Your task to perform on an android device: turn on priority inbox in the gmail app Image 0: 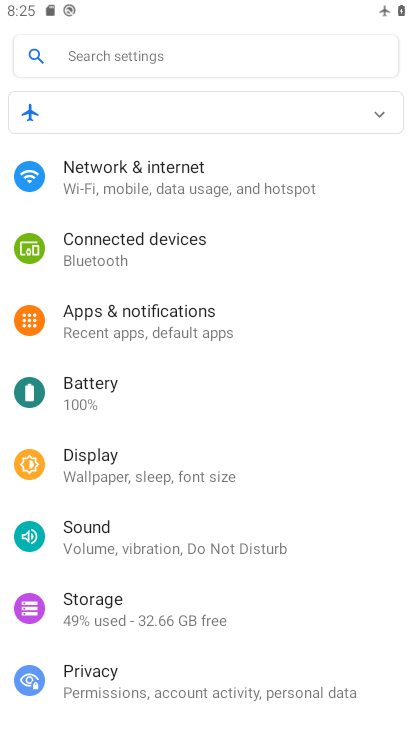
Step 0: press home button
Your task to perform on an android device: turn on priority inbox in the gmail app Image 1: 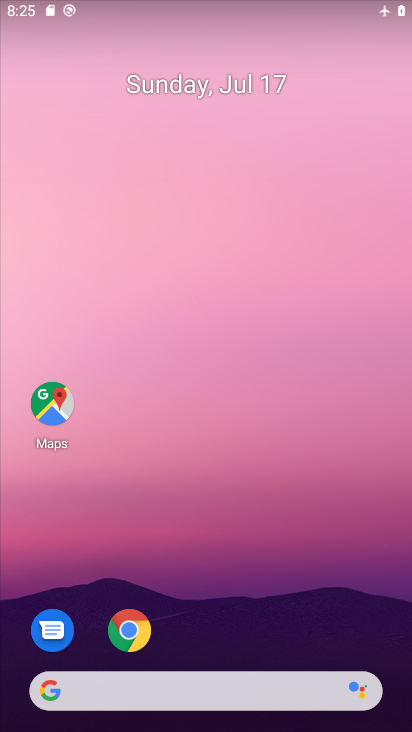
Step 1: drag from (205, 654) to (105, 5)
Your task to perform on an android device: turn on priority inbox in the gmail app Image 2: 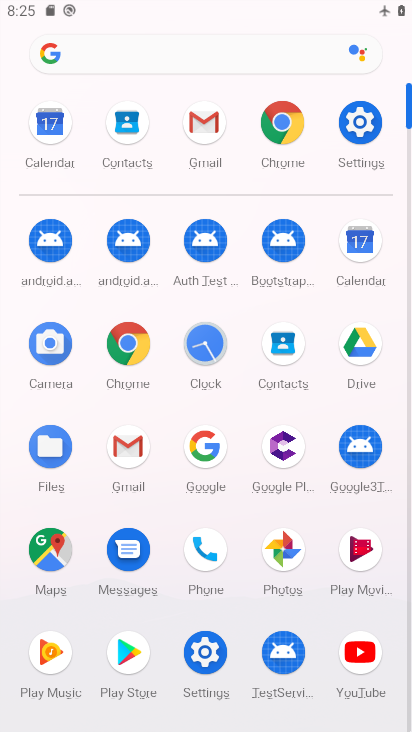
Step 2: click (128, 453)
Your task to perform on an android device: turn on priority inbox in the gmail app Image 3: 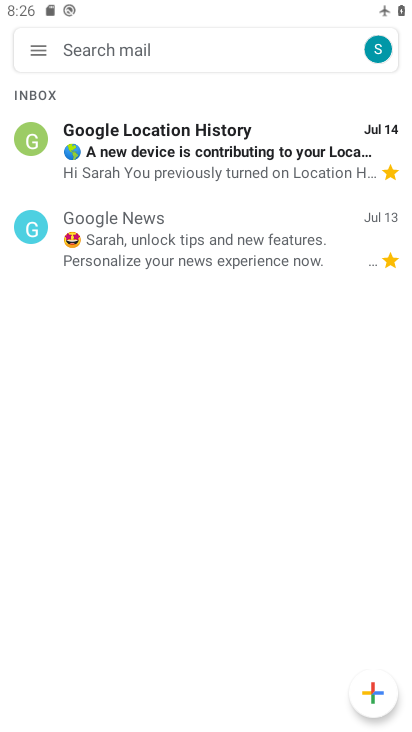
Step 3: click (39, 49)
Your task to perform on an android device: turn on priority inbox in the gmail app Image 4: 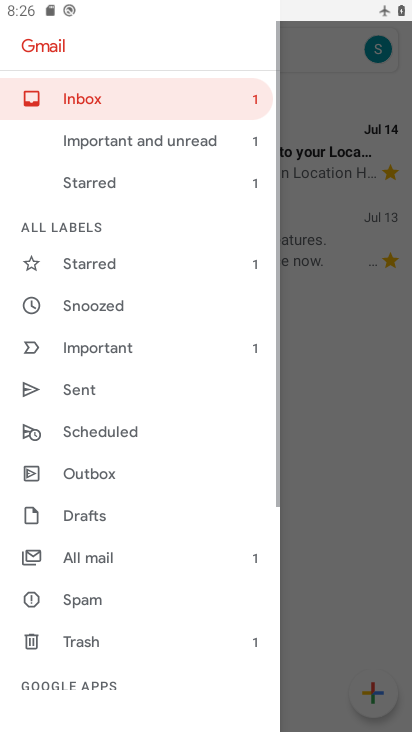
Step 4: drag from (89, 616) to (108, 165)
Your task to perform on an android device: turn on priority inbox in the gmail app Image 5: 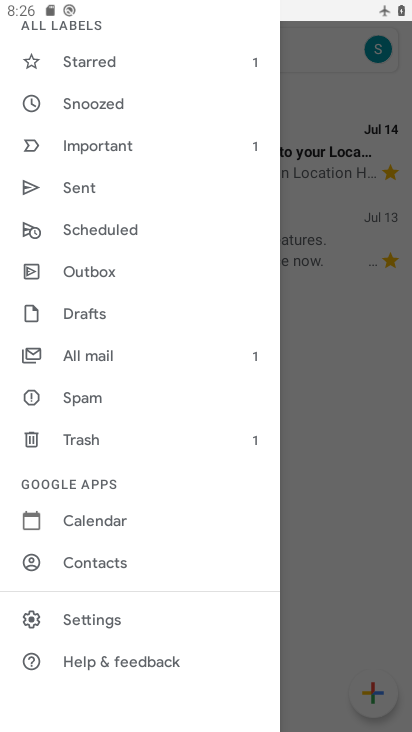
Step 5: click (77, 622)
Your task to perform on an android device: turn on priority inbox in the gmail app Image 6: 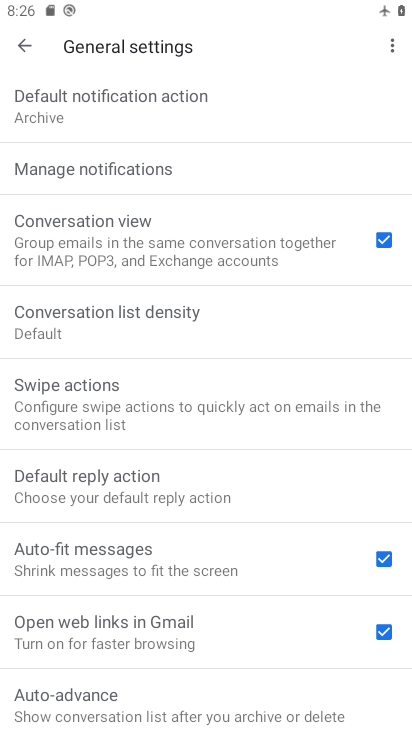
Step 6: click (18, 49)
Your task to perform on an android device: turn on priority inbox in the gmail app Image 7: 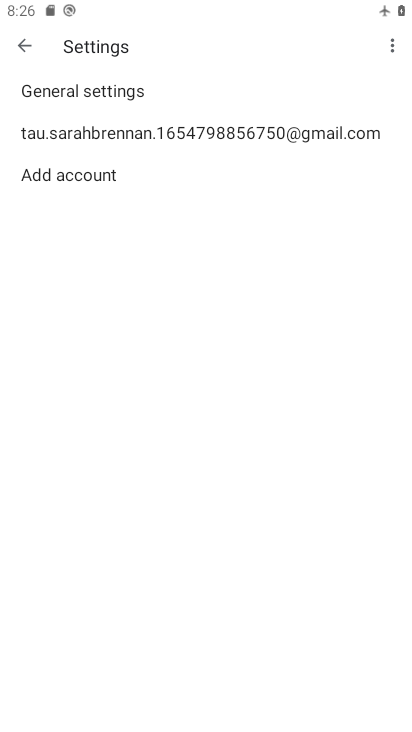
Step 7: click (134, 132)
Your task to perform on an android device: turn on priority inbox in the gmail app Image 8: 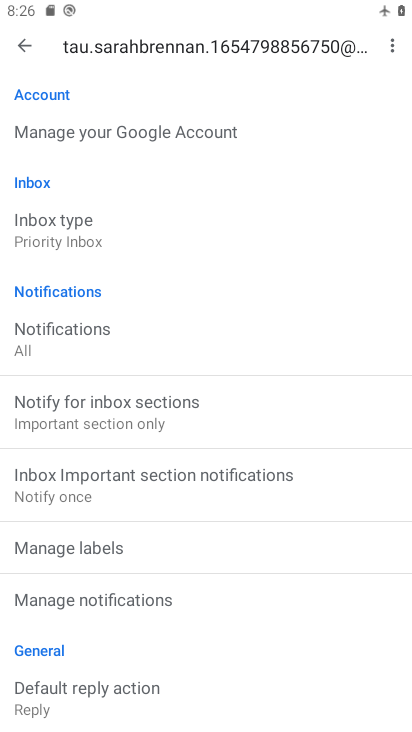
Step 8: click (86, 231)
Your task to perform on an android device: turn on priority inbox in the gmail app Image 9: 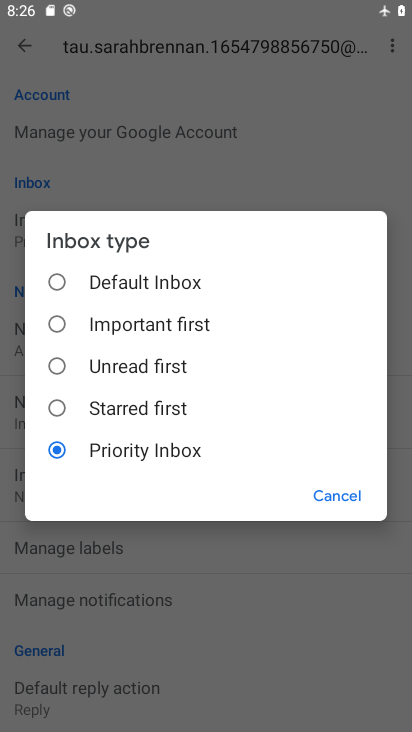
Step 9: task complete